Your task to perform on an android device: toggle priority inbox in the gmail app Image 0: 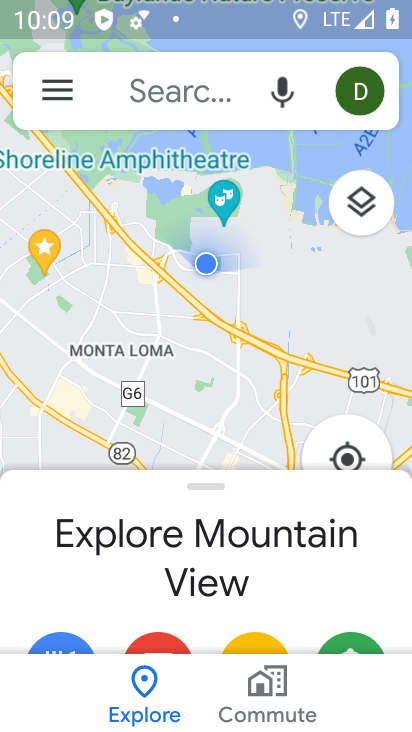
Step 0: press home button
Your task to perform on an android device: toggle priority inbox in the gmail app Image 1: 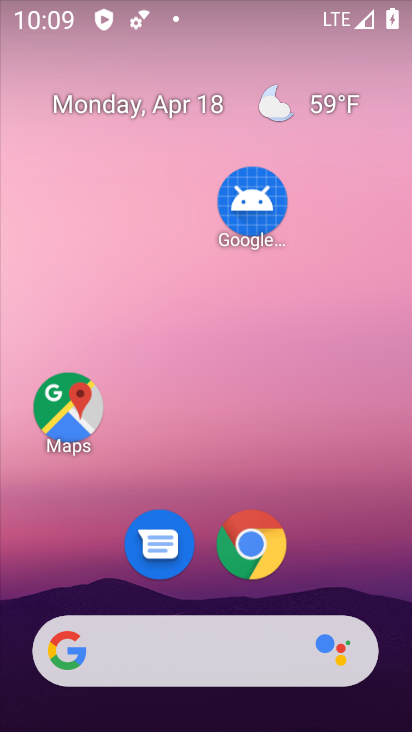
Step 1: click (226, 290)
Your task to perform on an android device: toggle priority inbox in the gmail app Image 2: 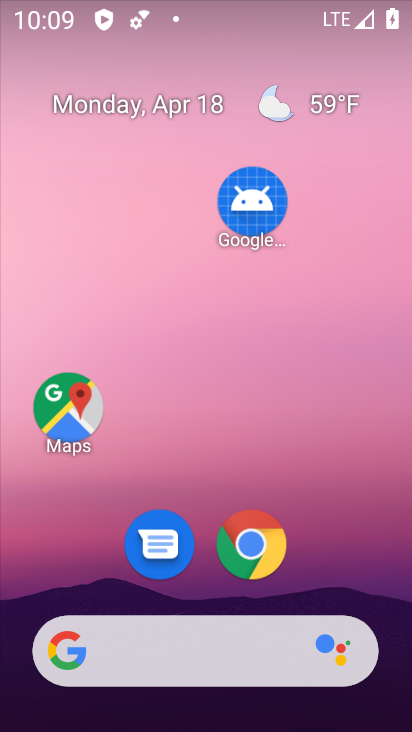
Step 2: drag from (259, 598) to (239, 240)
Your task to perform on an android device: toggle priority inbox in the gmail app Image 3: 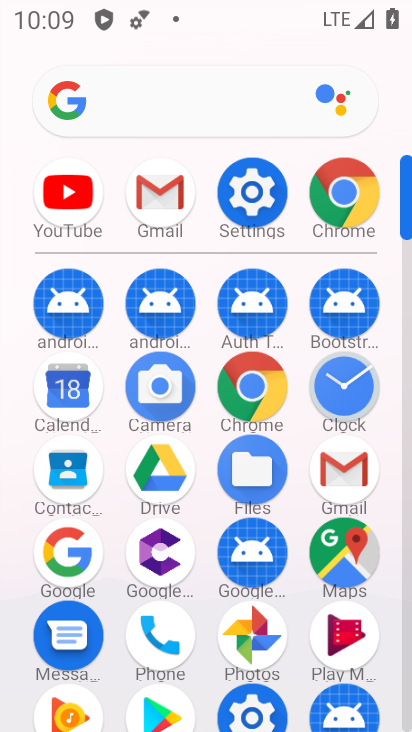
Step 3: click (168, 189)
Your task to perform on an android device: toggle priority inbox in the gmail app Image 4: 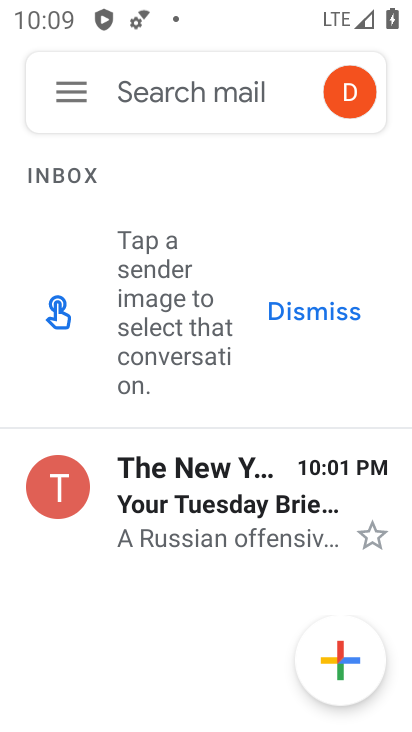
Step 4: click (65, 86)
Your task to perform on an android device: toggle priority inbox in the gmail app Image 5: 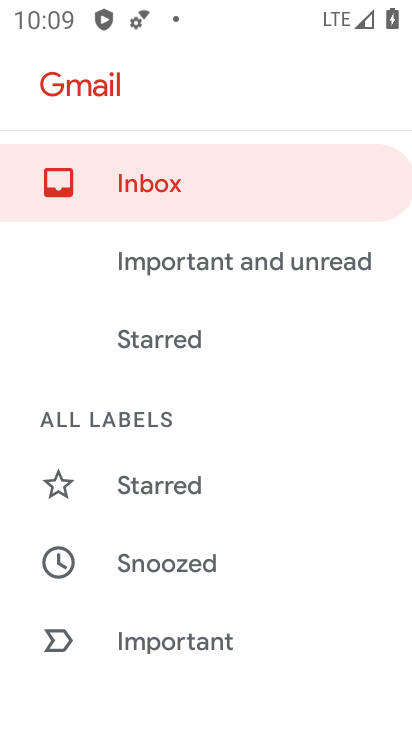
Step 5: drag from (248, 638) to (270, 119)
Your task to perform on an android device: toggle priority inbox in the gmail app Image 6: 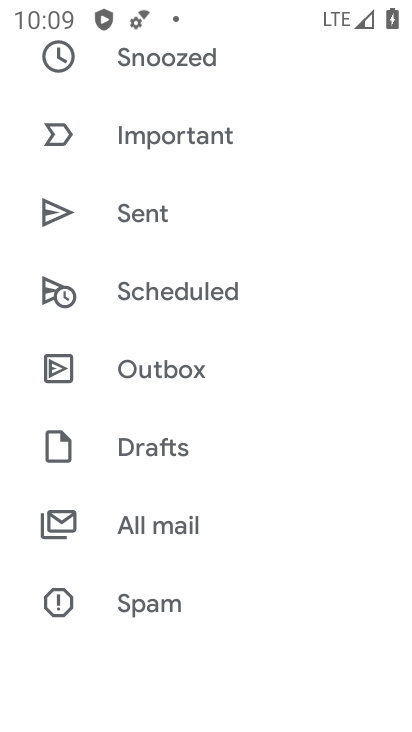
Step 6: drag from (234, 475) to (267, 109)
Your task to perform on an android device: toggle priority inbox in the gmail app Image 7: 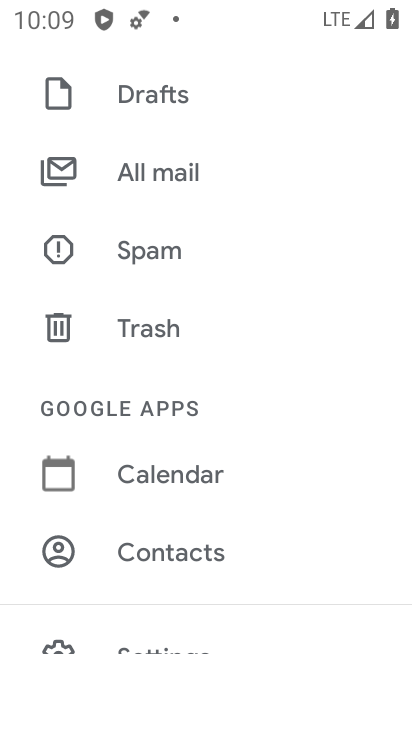
Step 7: drag from (227, 485) to (231, 168)
Your task to perform on an android device: toggle priority inbox in the gmail app Image 8: 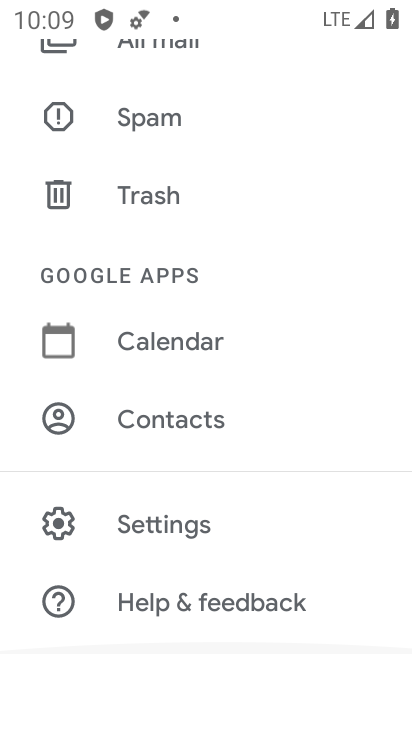
Step 8: click (123, 519)
Your task to perform on an android device: toggle priority inbox in the gmail app Image 9: 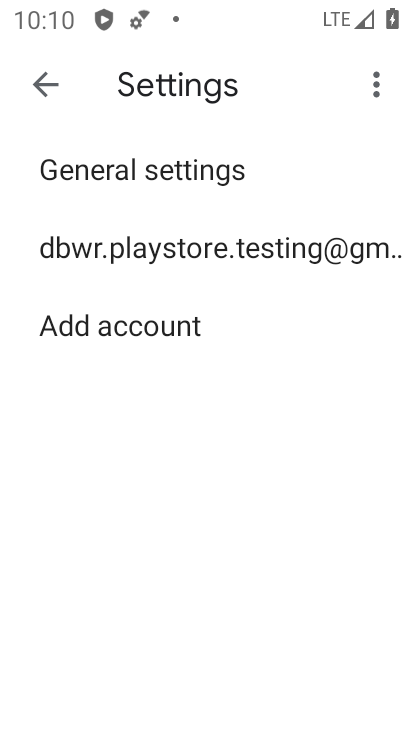
Step 9: click (246, 233)
Your task to perform on an android device: toggle priority inbox in the gmail app Image 10: 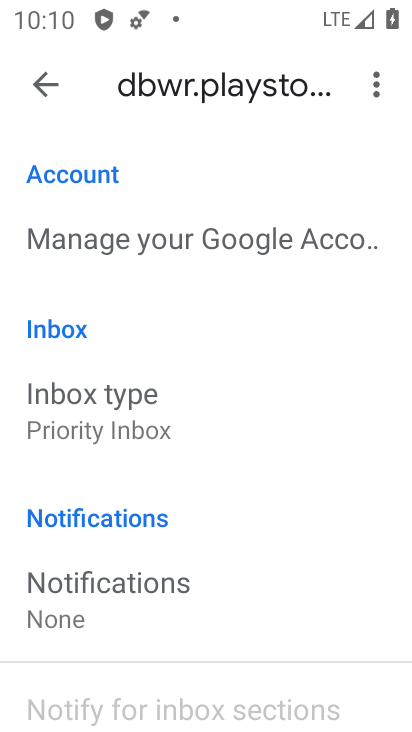
Step 10: click (121, 399)
Your task to perform on an android device: toggle priority inbox in the gmail app Image 11: 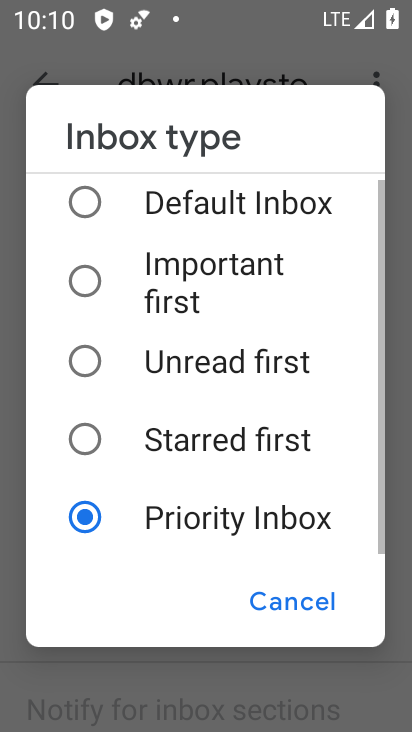
Step 11: click (207, 212)
Your task to perform on an android device: toggle priority inbox in the gmail app Image 12: 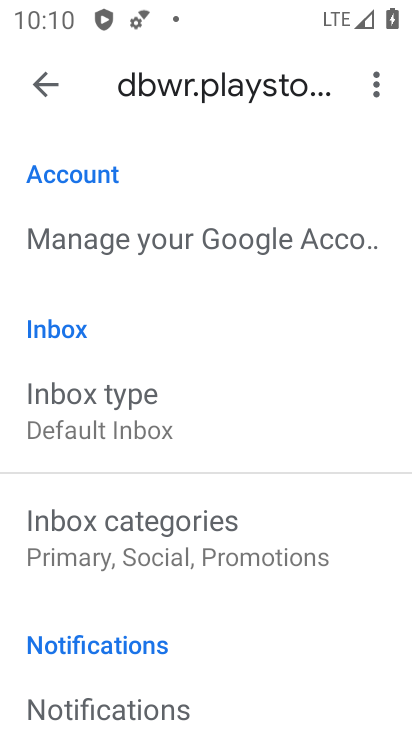
Step 12: task complete